Your task to perform on an android device: What is the recent news? Image 0: 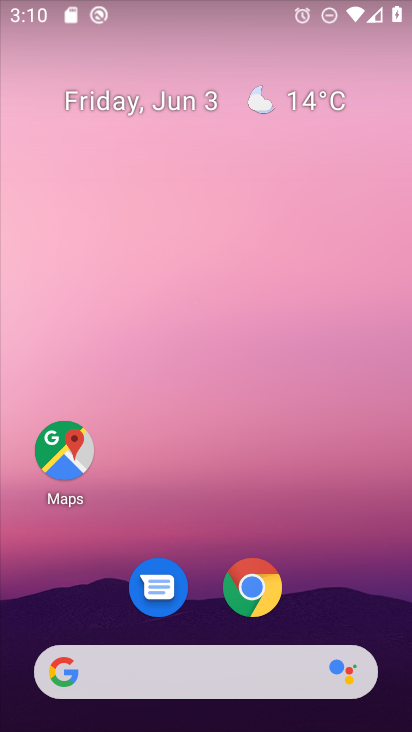
Step 0: drag from (4, 274) to (402, 230)
Your task to perform on an android device: What is the recent news? Image 1: 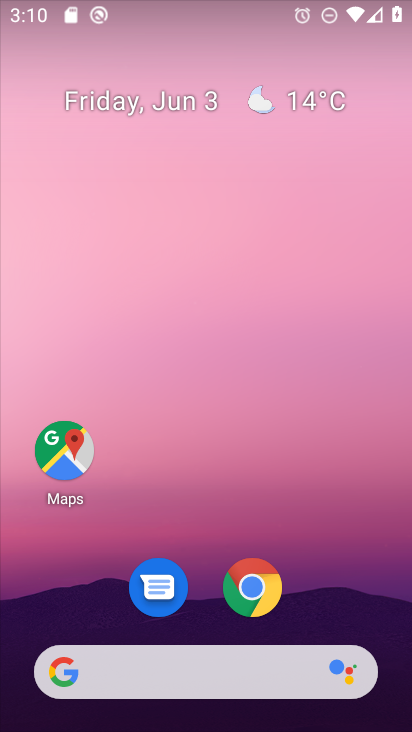
Step 1: task complete